Your task to perform on an android device: Go to Reddit.com Image 0: 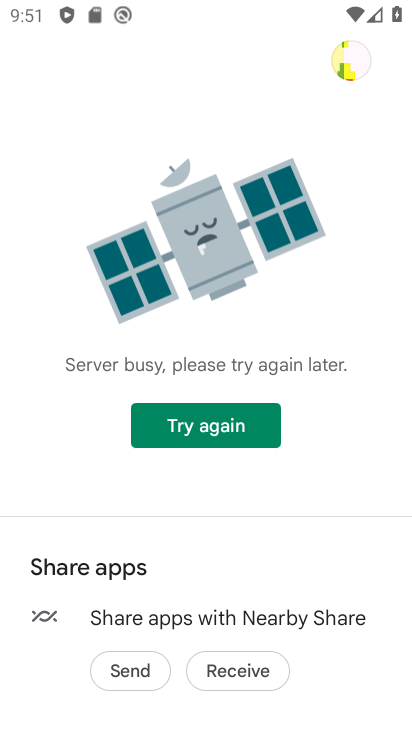
Step 0: press home button
Your task to perform on an android device: Go to Reddit.com Image 1: 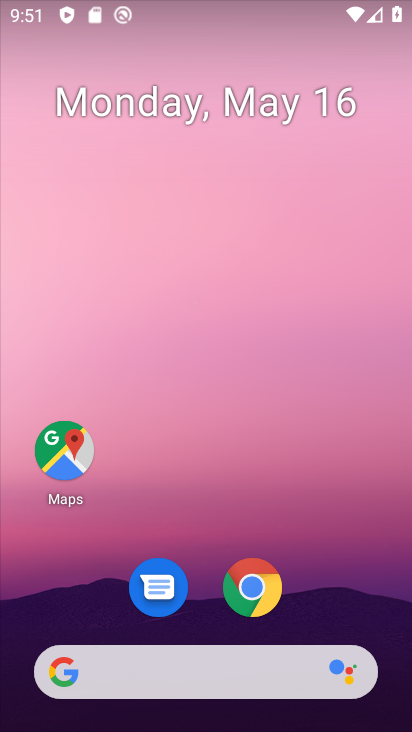
Step 1: drag from (206, 632) to (205, 6)
Your task to perform on an android device: Go to Reddit.com Image 2: 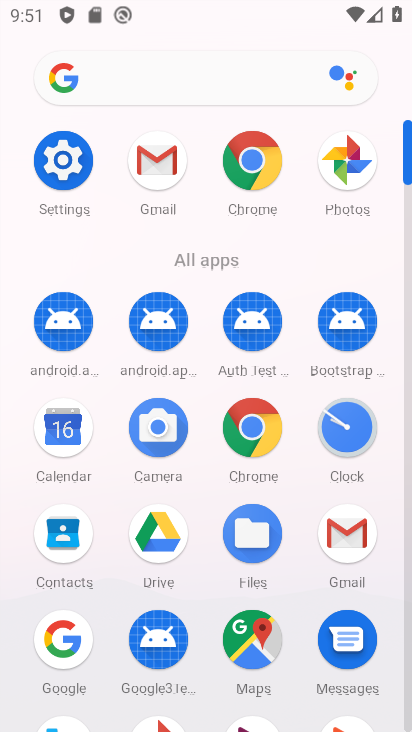
Step 2: click (260, 163)
Your task to perform on an android device: Go to Reddit.com Image 3: 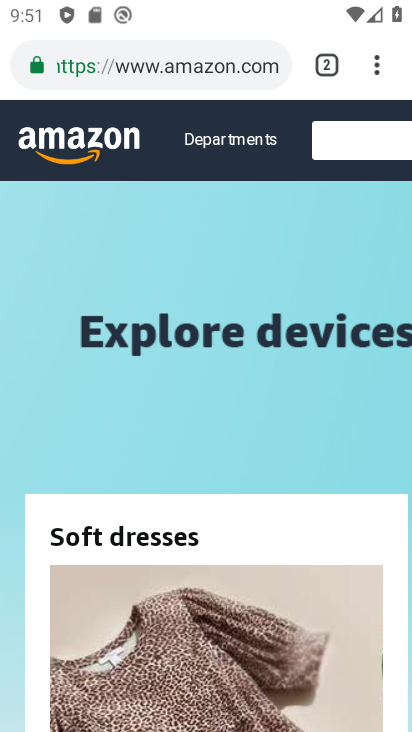
Step 3: click (312, 70)
Your task to perform on an android device: Go to Reddit.com Image 4: 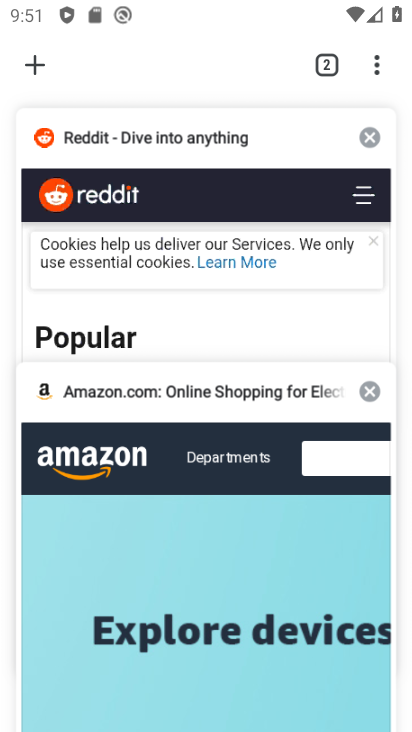
Step 4: click (97, 188)
Your task to perform on an android device: Go to Reddit.com Image 5: 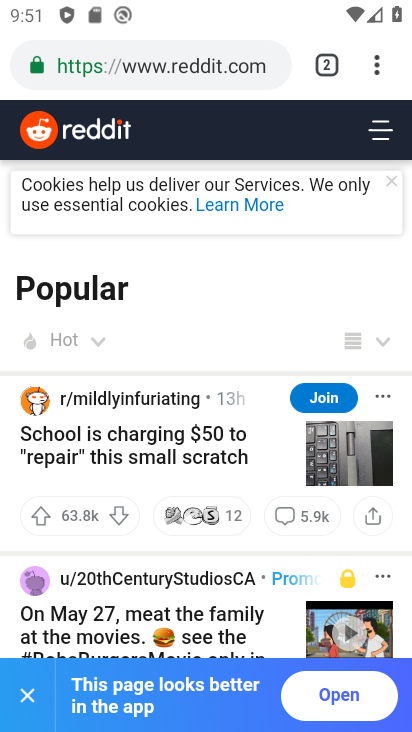
Step 5: task complete